Your task to perform on an android device: Turn on the flashlight Image 0: 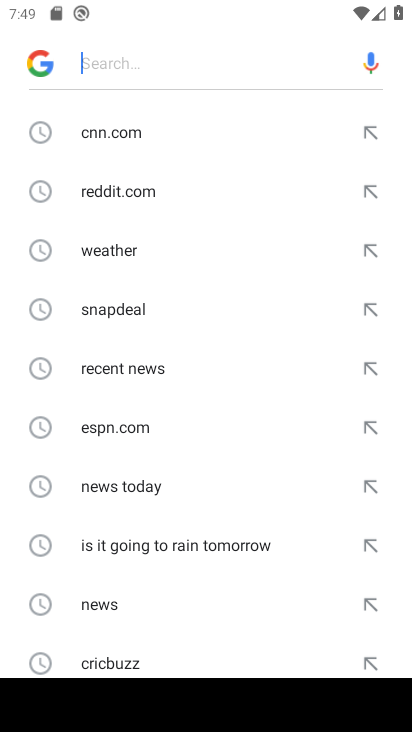
Step 0: press home button
Your task to perform on an android device: Turn on the flashlight Image 1: 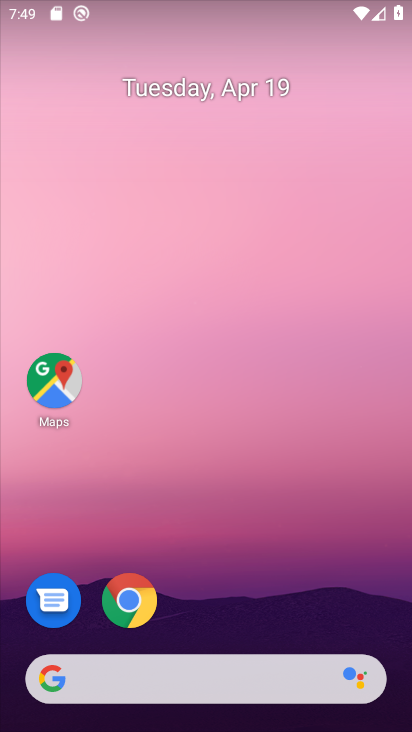
Step 1: drag from (262, 3) to (247, 393)
Your task to perform on an android device: Turn on the flashlight Image 2: 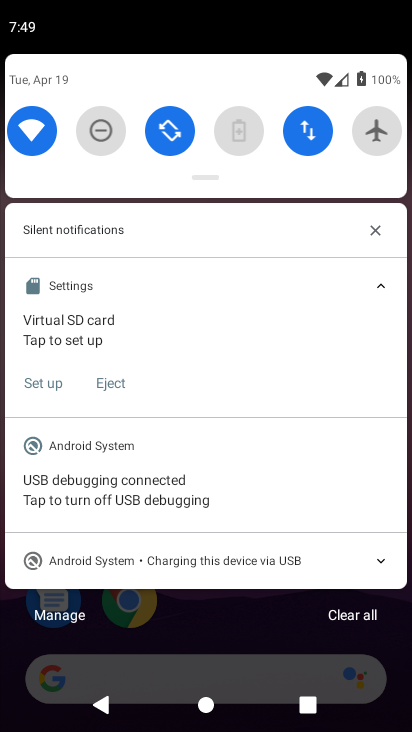
Step 2: drag from (202, 77) to (199, 373)
Your task to perform on an android device: Turn on the flashlight Image 3: 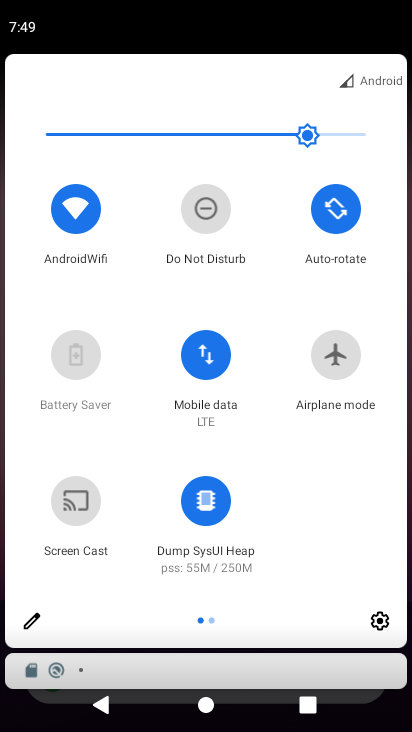
Step 3: click (35, 622)
Your task to perform on an android device: Turn on the flashlight Image 4: 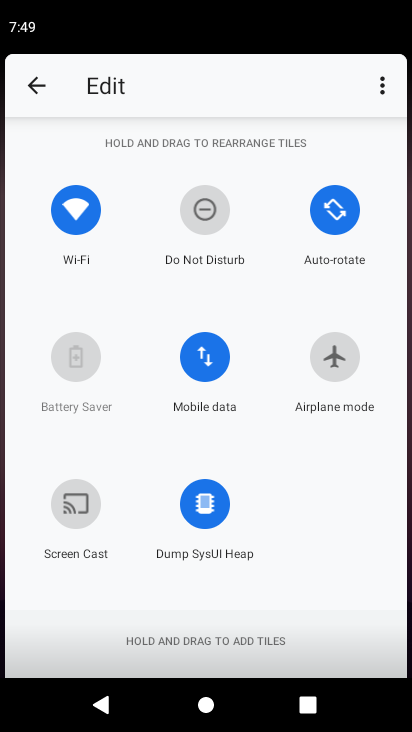
Step 4: task complete